Your task to perform on an android device: Toggle the flashlight Image 0: 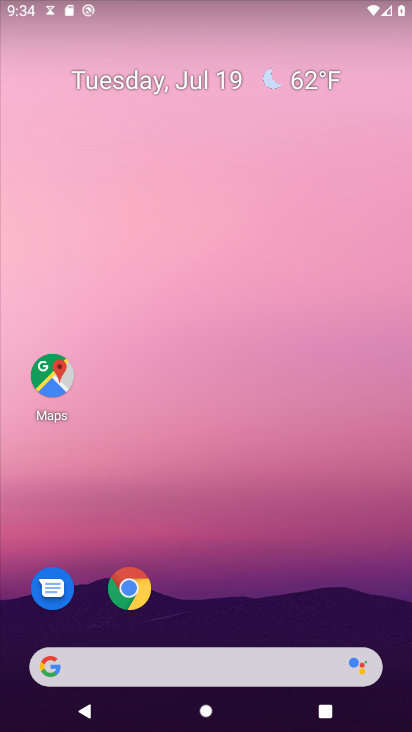
Step 0: drag from (180, 554) to (130, 137)
Your task to perform on an android device: Toggle the flashlight Image 1: 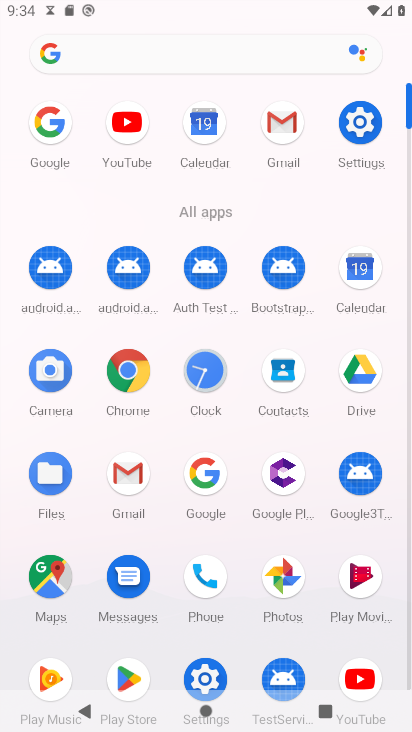
Step 1: click (362, 132)
Your task to perform on an android device: Toggle the flashlight Image 2: 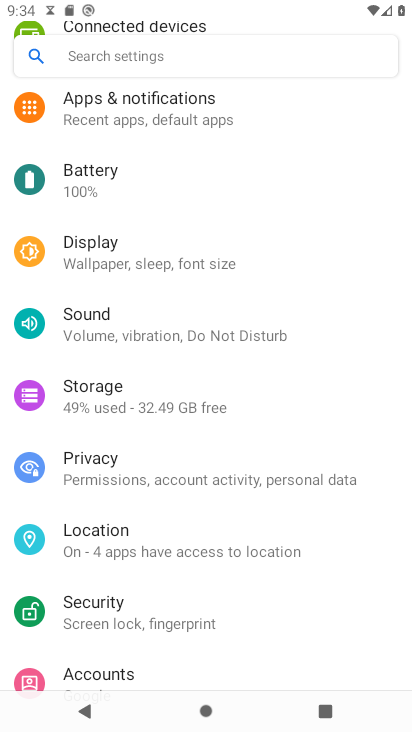
Step 2: task complete